Your task to perform on an android device: open a bookmark in the chrome app Image 0: 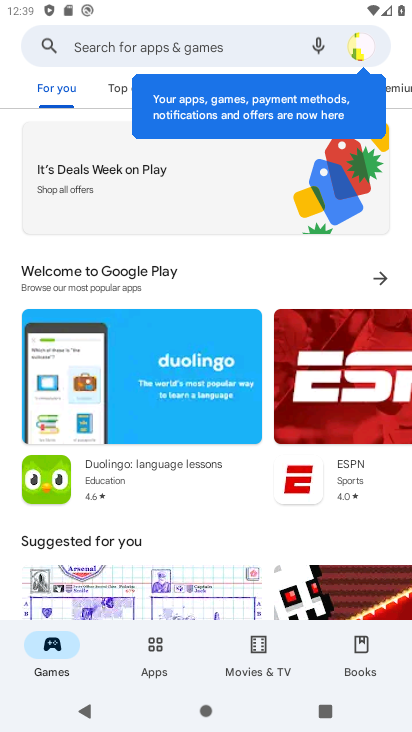
Step 0: press home button
Your task to perform on an android device: open a bookmark in the chrome app Image 1: 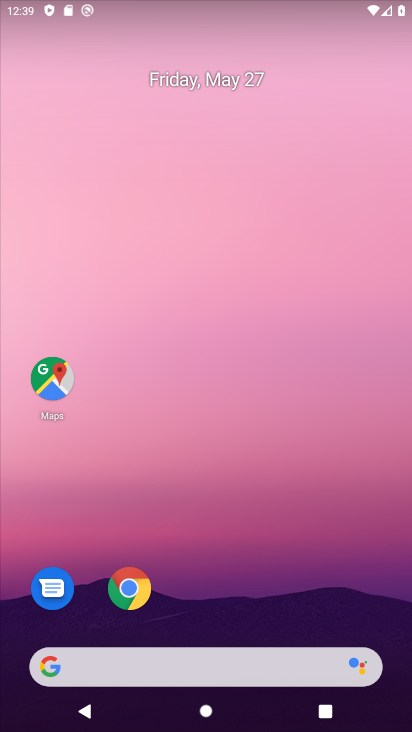
Step 1: click (134, 596)
Your task to perform on an android device: open a bookmark in the chrome app Image 2: 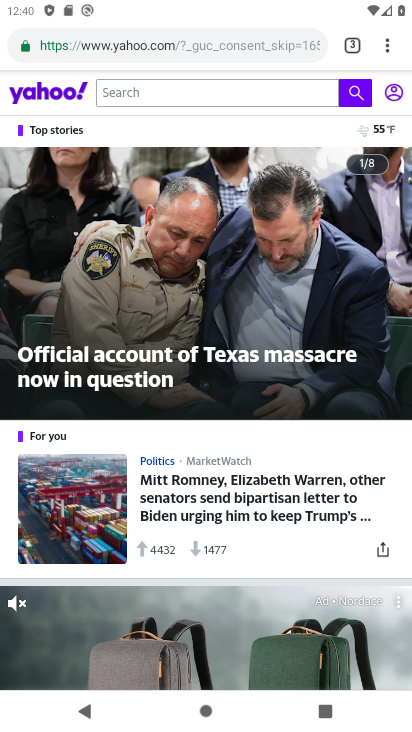
Step 2: click (390, 44)
Your task to perform on an android device: open a bookmark in the chrome app Image 3: 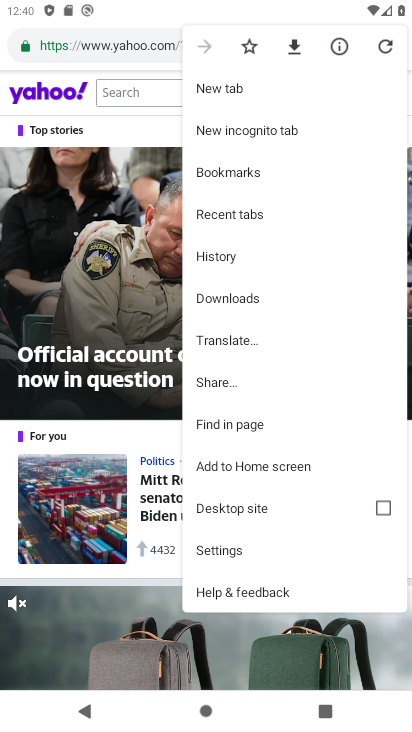
Step 3: click (240, 177)
Your task to perform on an android device: open a bookmark in the chrome app Image 4: 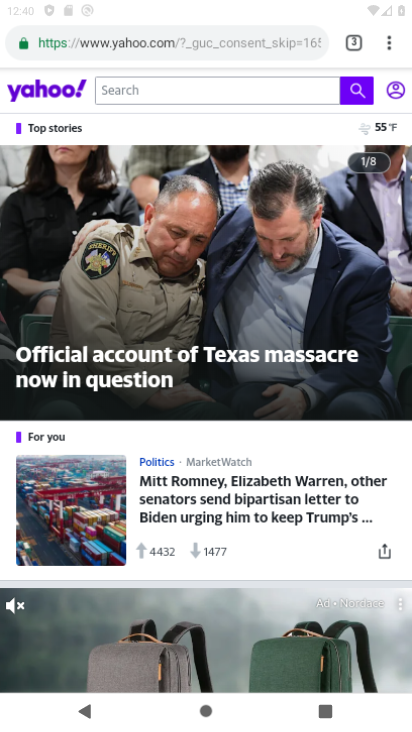
Step 4: task complete